Your task to perform on an android device: turn on location history Image 0: 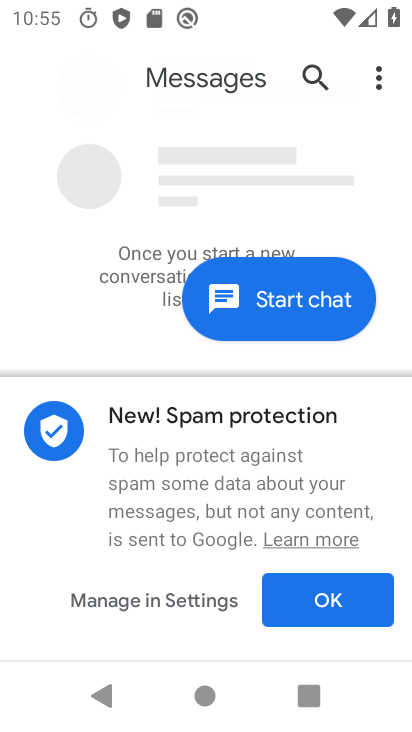
Step 0: press home button
Your task to perform on an android device: turn on location history Image 1: 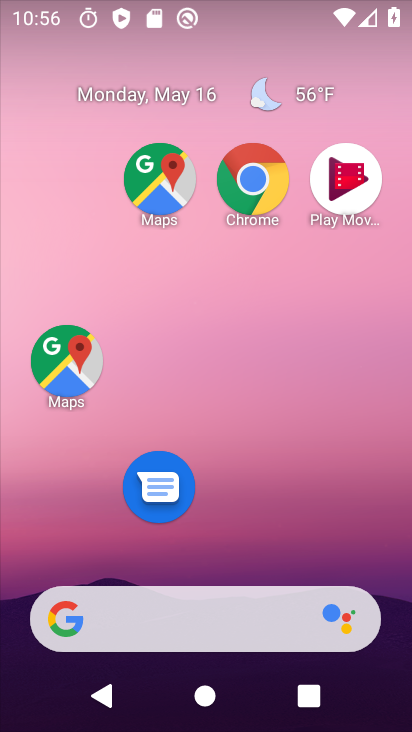
Step 1: drag from (247, 528) to (215, 176)
Your task to perform on an android device: turn on location history Image 2: 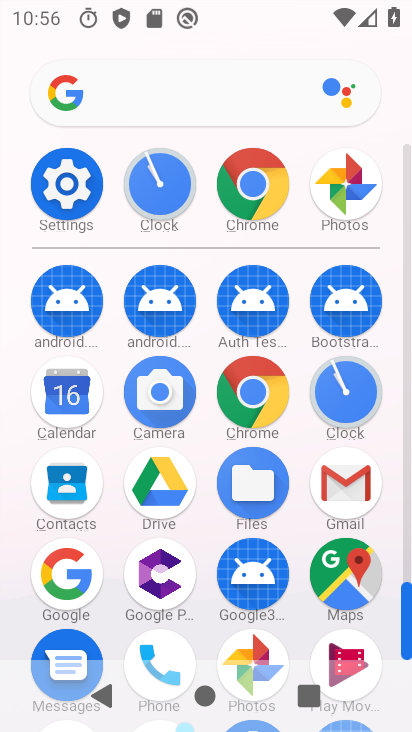
Step 2: click (61, 195)
Your task to perform on an android device: turn on location history Image 3: 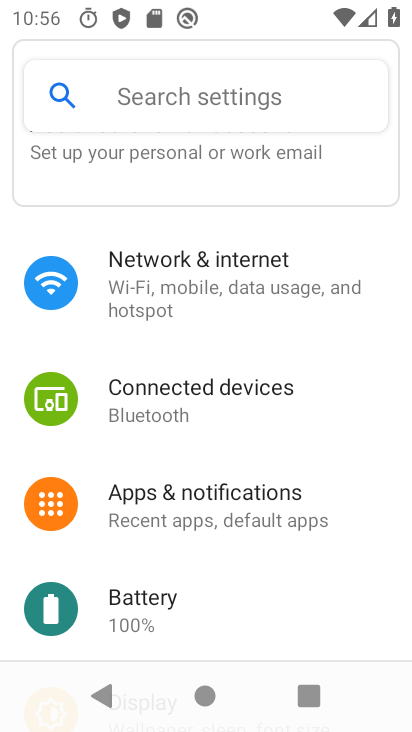
Step 3: click (271, 340)
Your task to perform on an android device: turn on location history Image 4: 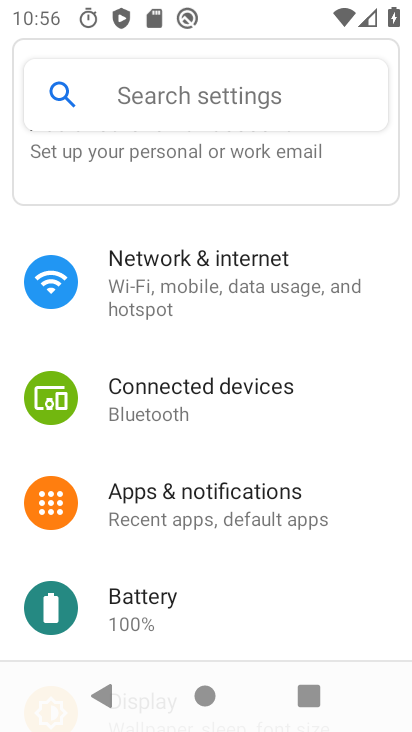
Step 4: click (234, 244)
Your task to perform on an android device: turn on location history Image 5: 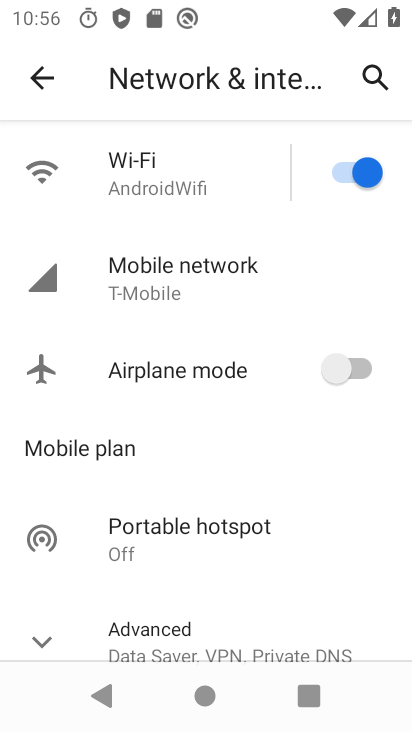
Step 5: click (34, 79)
Your task to perform on an android device: turn on location history Image 6: 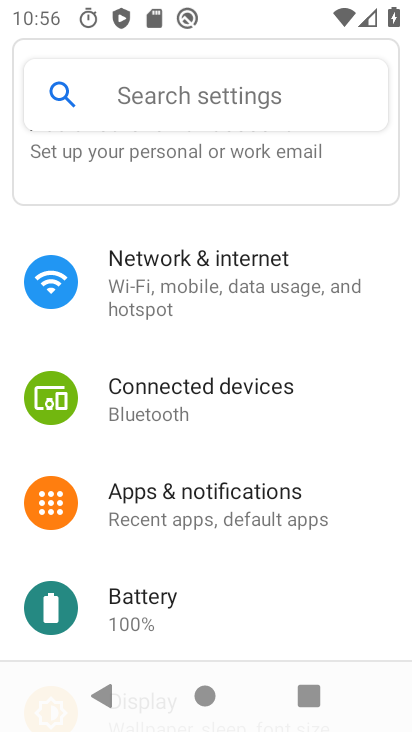
Step 6: drag from (247, 297) to (249, 170)
Your task to perform on an android device: turn on location history Image 7: 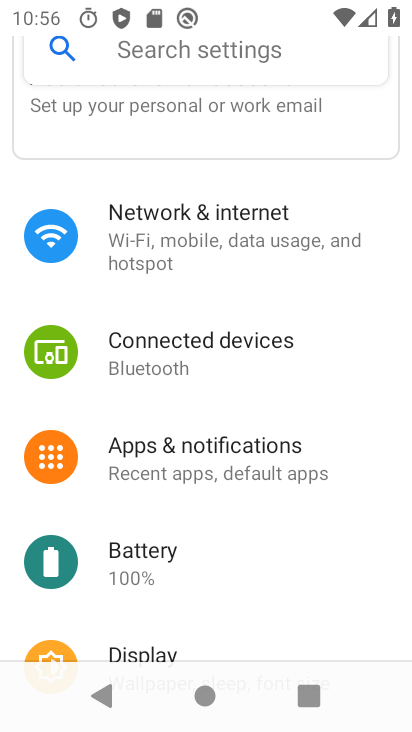
Step 7: click (153, 275)
Your task to perform on an android device: turn on location history Image 8: 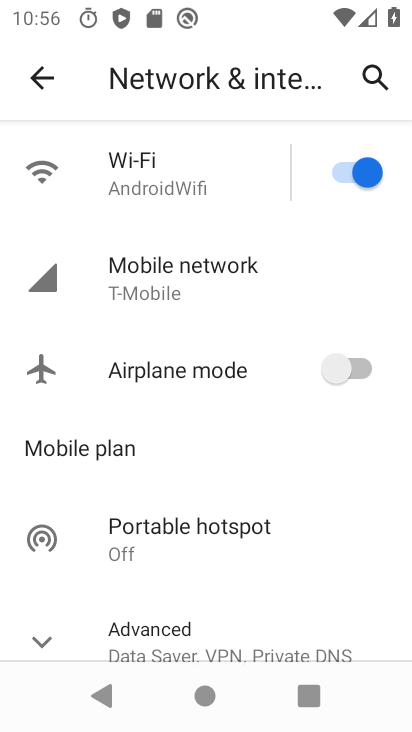
Step 8: click (36, 75)
Your task to perform on an android device: turn on location history Image 9: 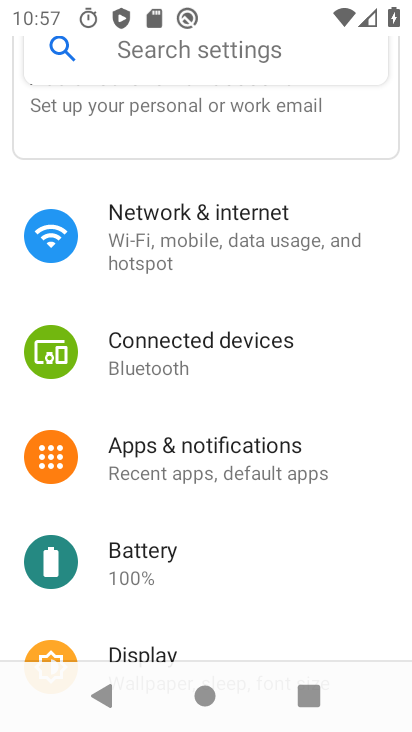
Step 9: drag from (233, 589) to (358, 331)
Your task to perform on an android device: turn on location history Image 10: 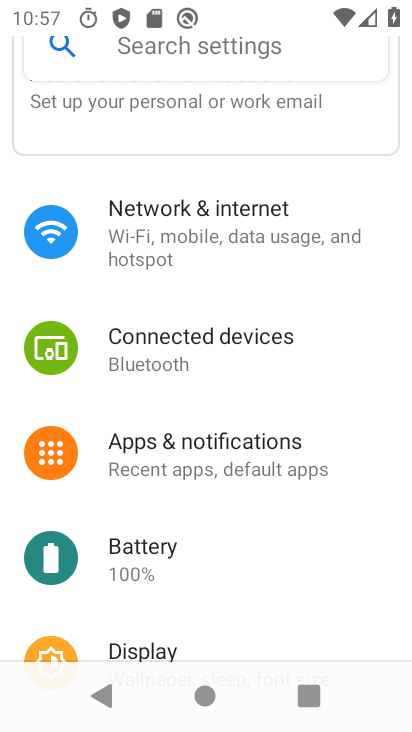
Step 10: drag from (215, 555) to (184, 293)
Your task to perform on an android device: turn on location history Image 11: 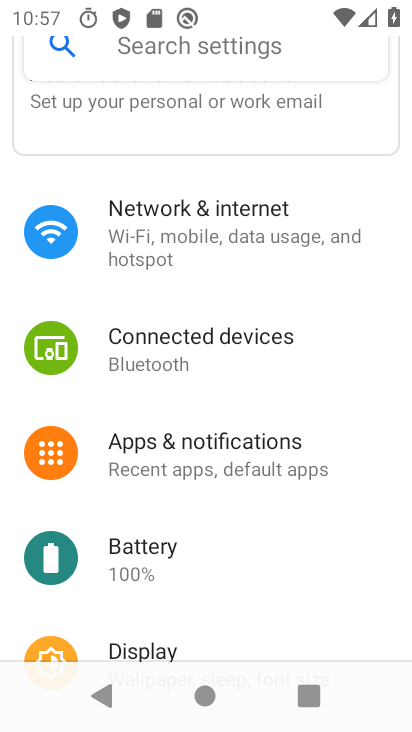
Step 11: drag from (182, 578) to (168, 236)
Your task to perform on an android device: turn on location history Image 12: 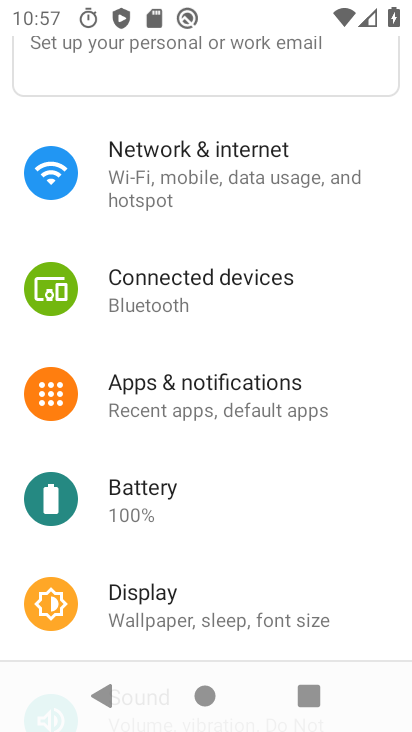
Step 12: drag from (233, 465) to (229, 255)
Your task to perform on an android device: turn on location history Image 13: 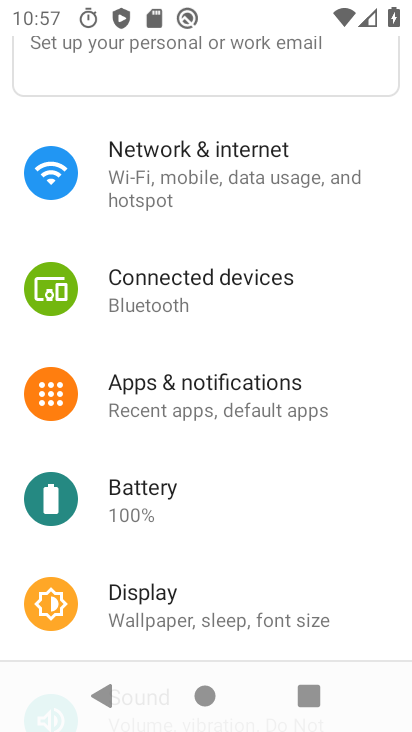
Step 13: drag from (217, 573) to (207, 214)
Your task to perform on an android device: turn on location history Image 14: 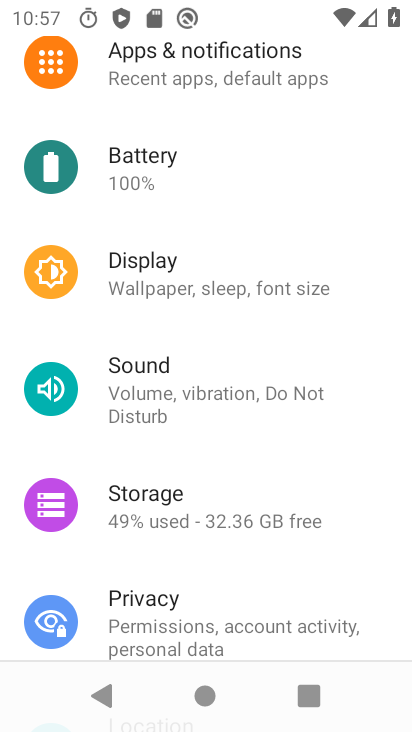
Step 14: drag from (200, 599) to (197, 369)
Your task to perform on an android device: turn on location history Image 15: 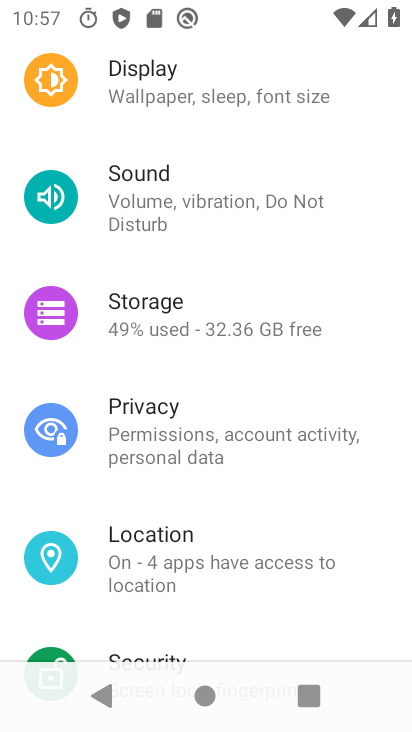
Step 15: click (187, 558)
Your task to perform on an android device: turn on location history Image 16: 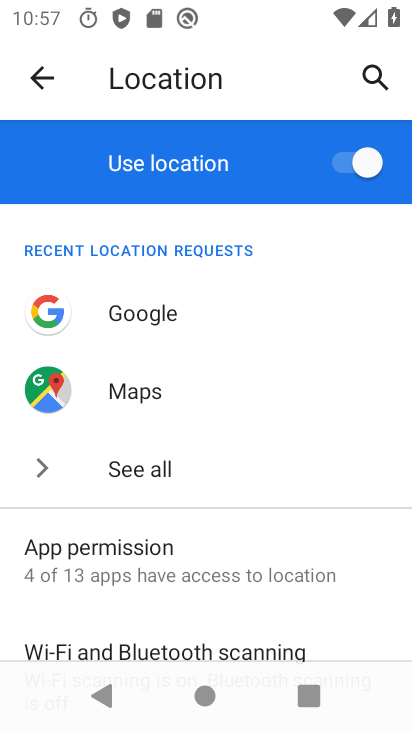
Step 16: drag from (160, 605) to (199, 279)
Your task to perform on an android device: turn on location history Image 17: 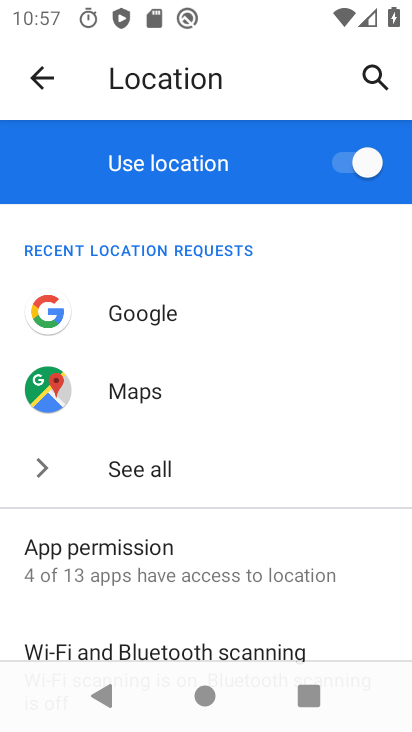
Step 17: drag from (201, 418) to (228, 275)
Your task to perform on an android device: turn on location history Image 18: 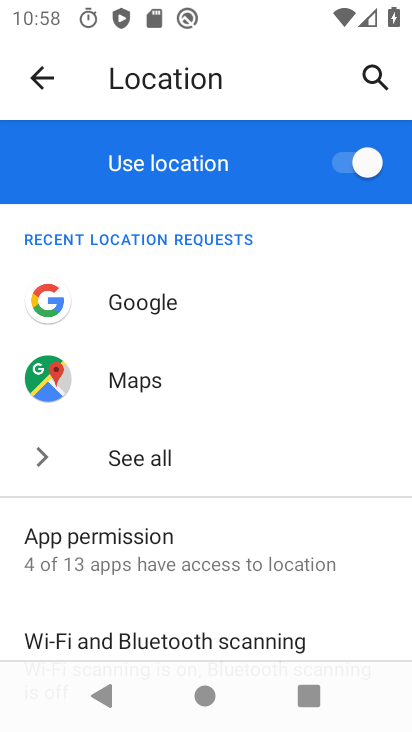
Step 18: drag from (138, 437) to (151, 337)
Your task to perform on an android device: turn on location history Image 19: 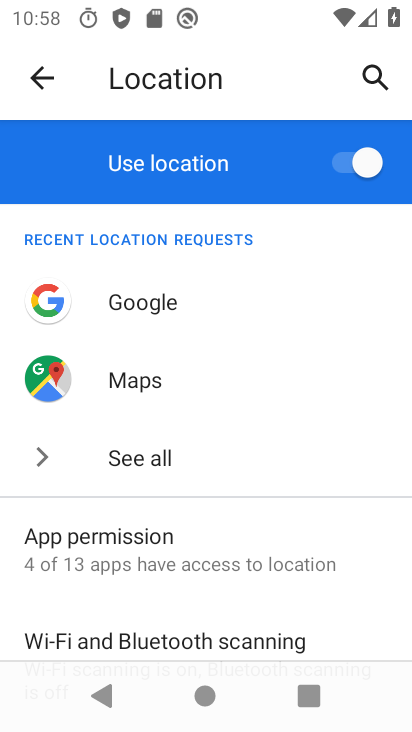
Step 19: drag from (146, 585) to (155, 186)
Your task to perform on an android device: turn on location history Image 20: 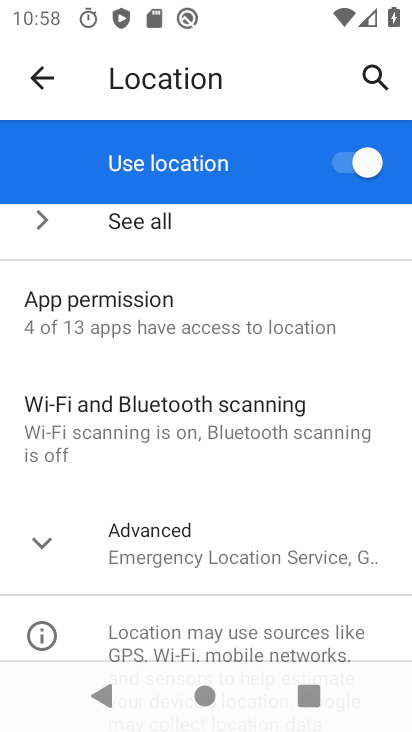
Step 20: click (135, 556)
Your task to perform on an android device: turn on location history Image 21: 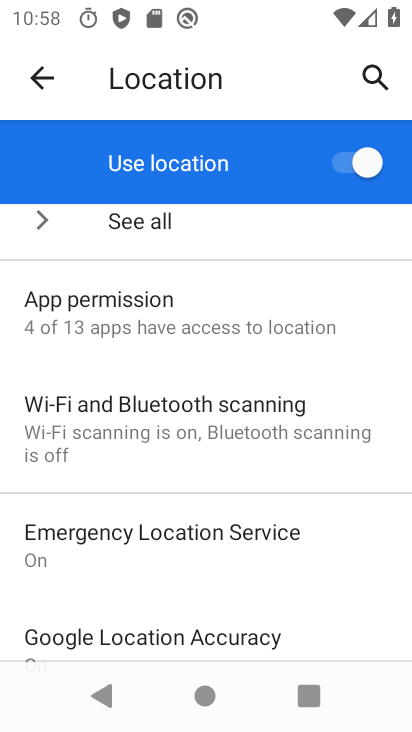
Step 21: drag from (175, 610) to (222, 270)
Your task to perform on an android device: turn on location history Image 22: 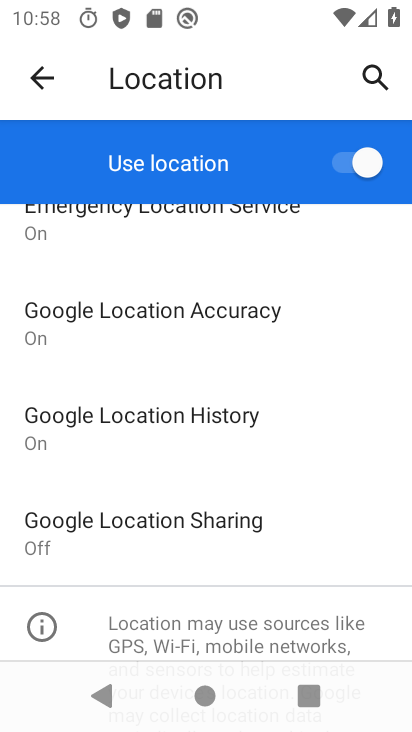
Step 22: click (122, 421)
Your task to perform on an android device: turn on location history Image 23: 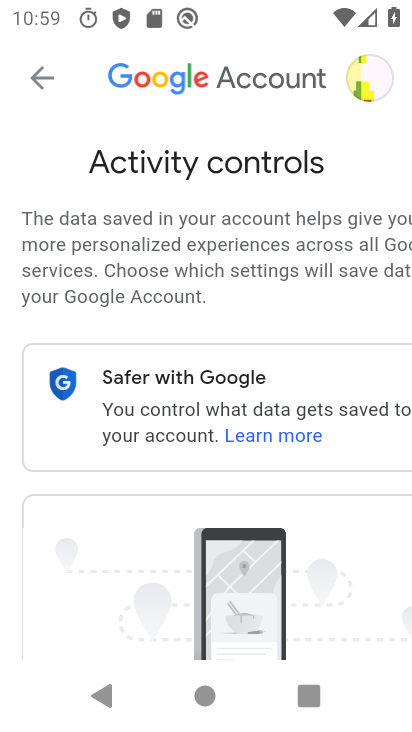
Step 23: drag from (325, 562) to (344, 175)
Your task to perform on an android device: turn on location history Image 24: 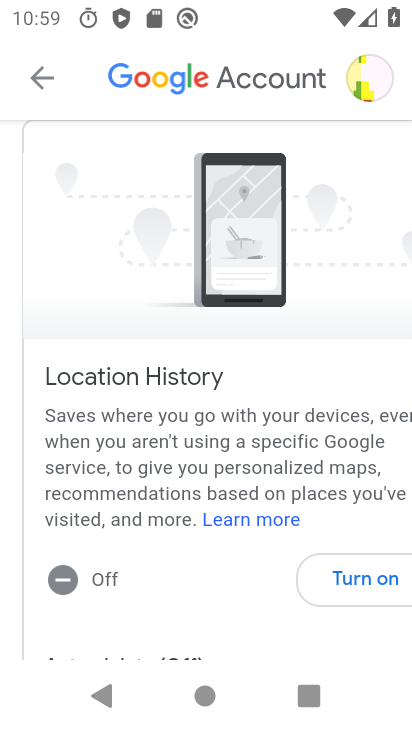
Step 24: click (351, 588)
Your task to perform on an android device: turn on location history Image 25: 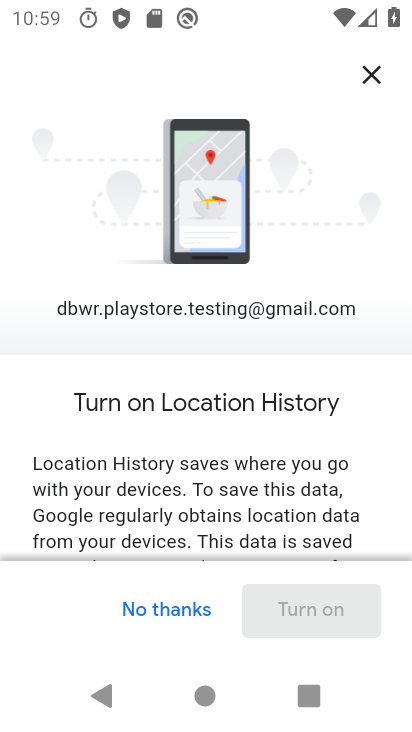
Step 25: drag from (221, 535) to (222, 108)
Your task to perform on an android device: turn on location history Image 26: 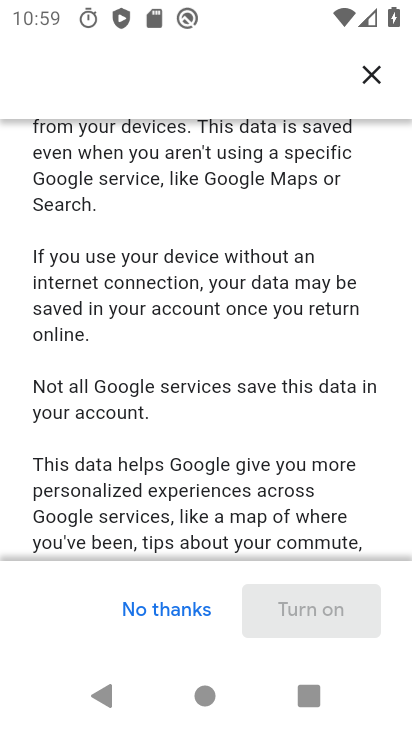
Step 26: drag from (197, 531) to (264, 26)
Your task to perform on an android device: turn on location history Image 27: 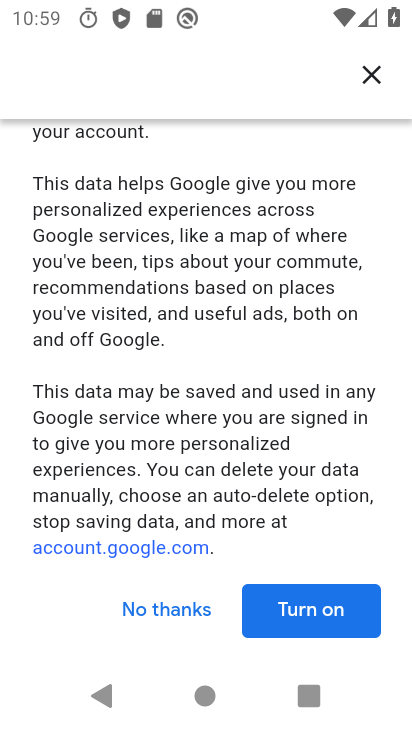
Step 27: click (280, 610)
Your task to perform on an android device: turn on location history Image 28: 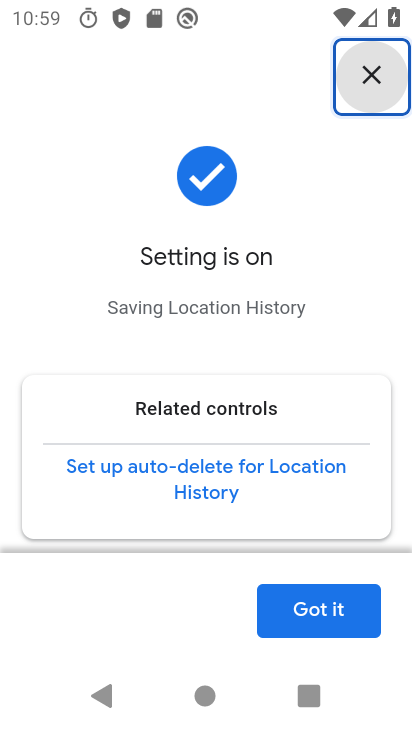
Step 28: click (287, 638)
Your task to perform on an android device: turn on location history Image 29: 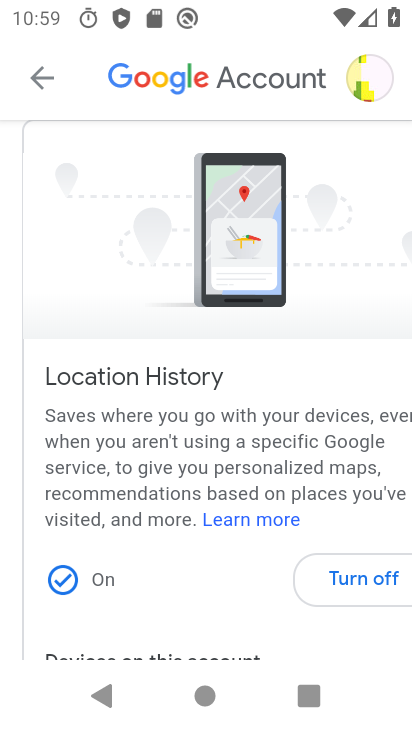
Step 29: task complete